Your task to perform on an android device: turn on data saver in the chrome app Image 0: 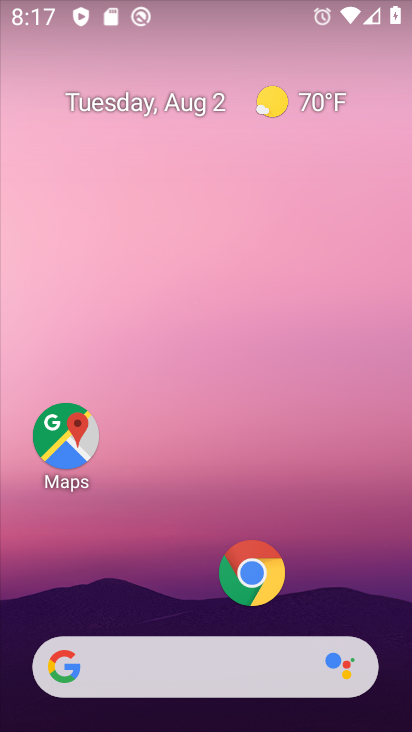
Step 0: click (255, 568)
Your task to perform on an android device: turn on data saver in the chrome app Image 1: 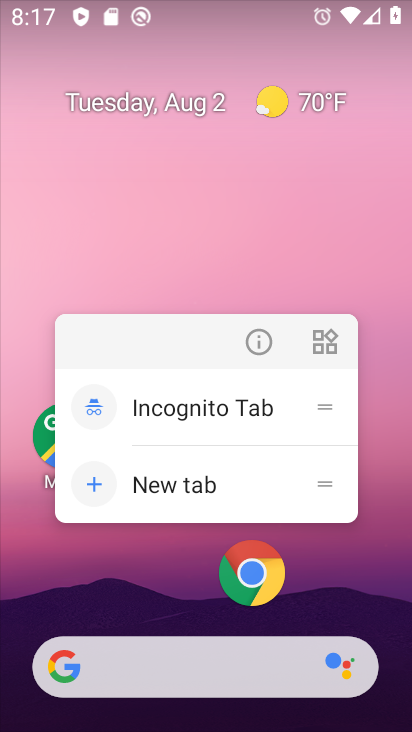
Step 1: click (241, 579)
Your task to perform on an android device: turn on data saver in the chrome app Image 2: 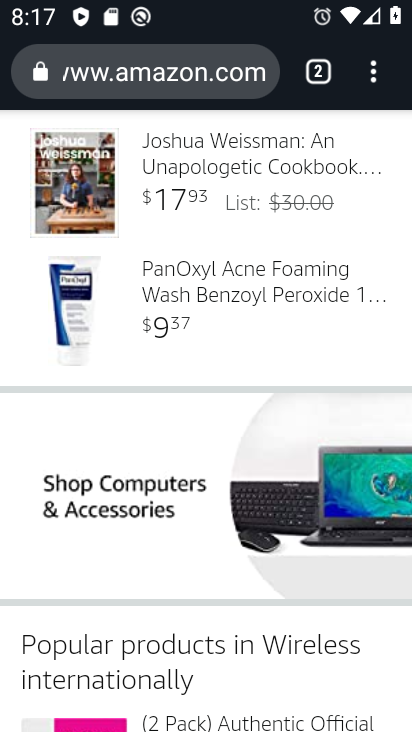
Step 2: click (366, 70)
Your task to perform on an android device: turn on data saver in the chrome app Image 3: 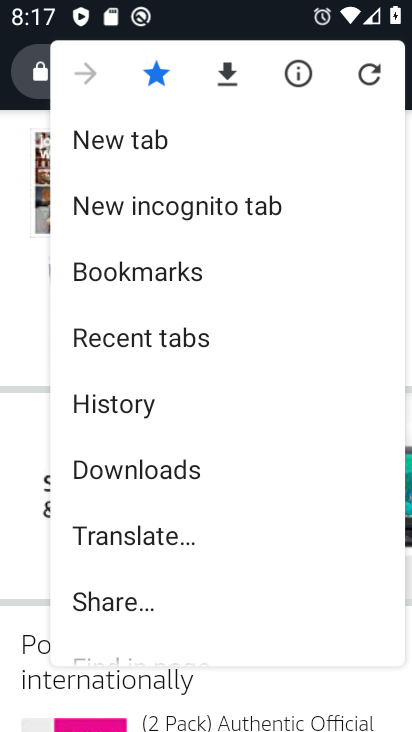
Step 3: drag from (201, 601) to (213, 194)
Your task to perform on an android device: turn on data saver in the chrome app Image 4: 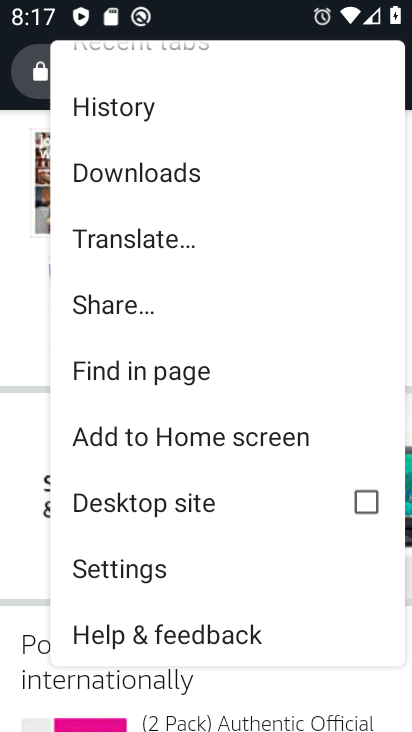
Step 4: click (187, 568)
Your task to perform on an android device: turn on data saver in the chrome app Image 5: 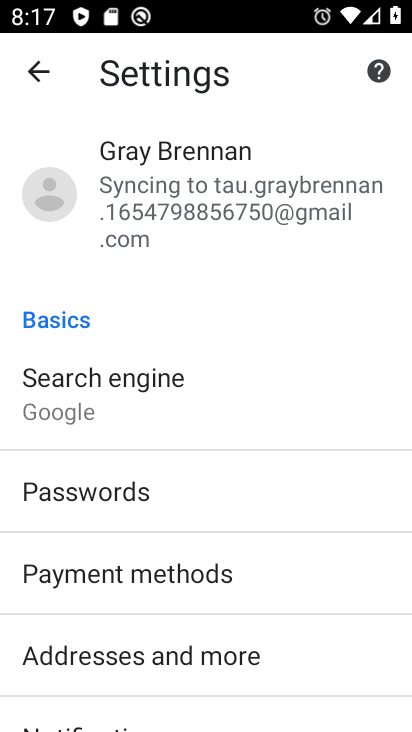
Step 5: drag from (258, 649) to (245, 186)
Your task to perform on an android device: turn on data saver in the chrome app Image 6: 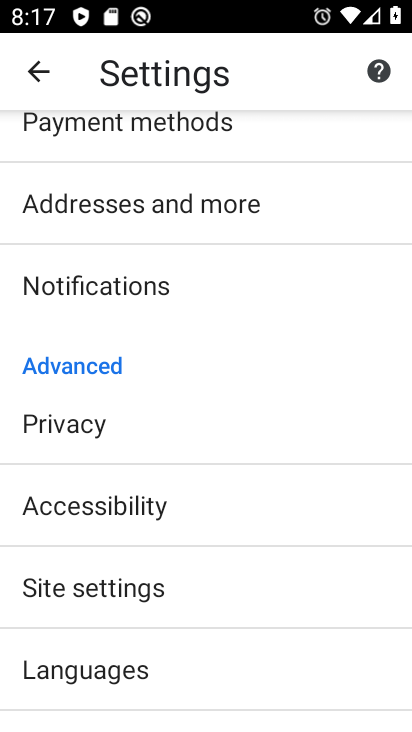
Step 6: drag from (200, 684) to (190, 368)
Your task to perform on an android device: turn on data saver in the chrome app Image 7: 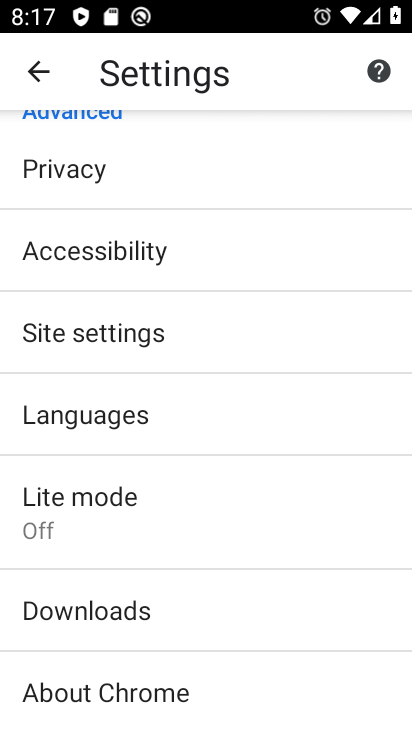
Step 7: click (85, 514)
Your task to perform on an android device: turn on data saver in the chrome app Image 8: 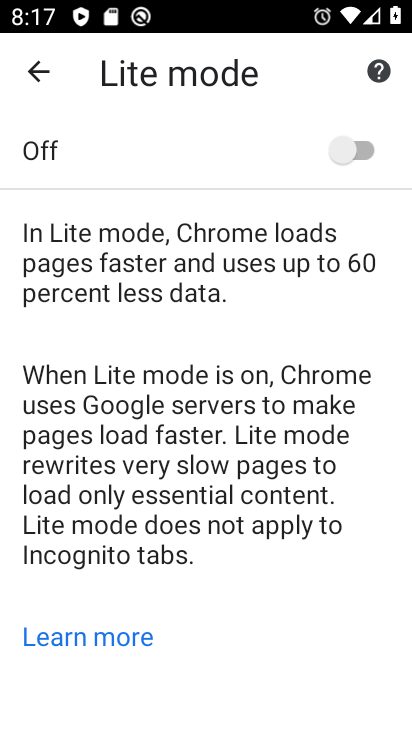
Step 8: click (359, 146)
Your task to perform on an android device: turn on data saver in the chrome app Image 9: 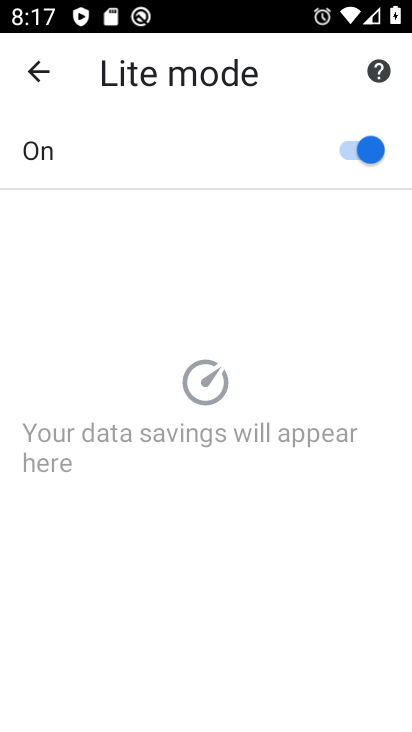
Step 9: task complete